Your task to perform on an android device: toggle show notifications on the lock screen Image 0: 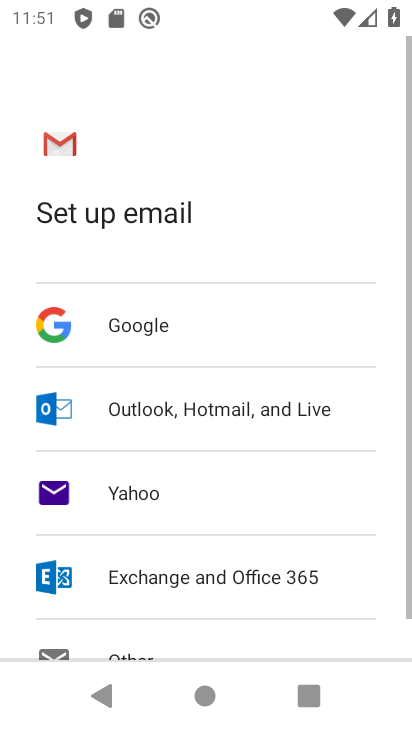
Step 0: press home button
Your task to perform on an android device: toggle show notifications on the lock screen Image 1: 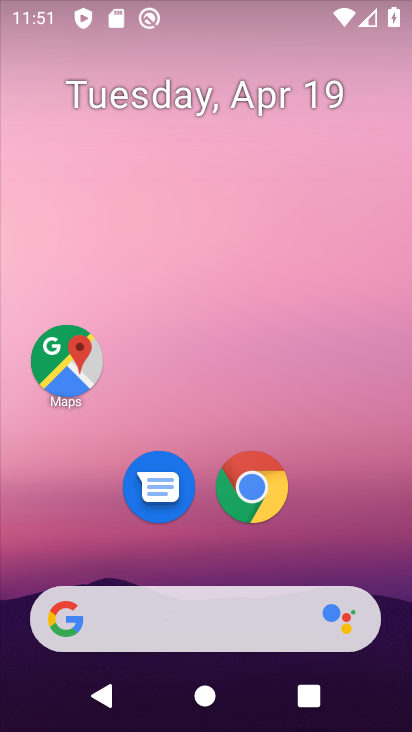
Step 1: drag from (357, 546) to (289, 92)
Your task to perform on an android device: toggle show notifications on the lock screen Image 2: 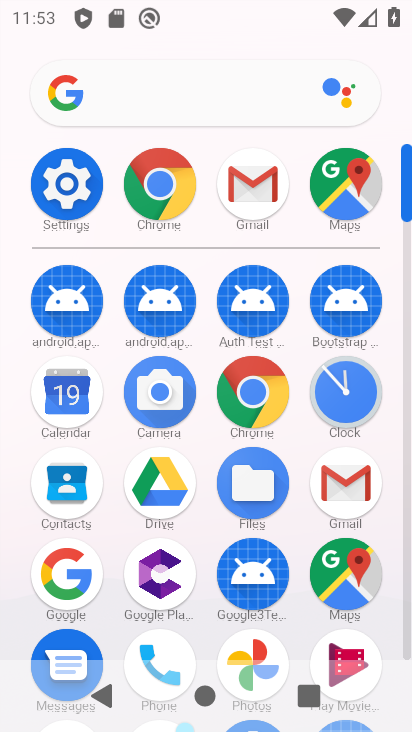
Step 2: click (83, 196)
Your task to perform on an android device: toggle show notifications on the lock screen Image 3: 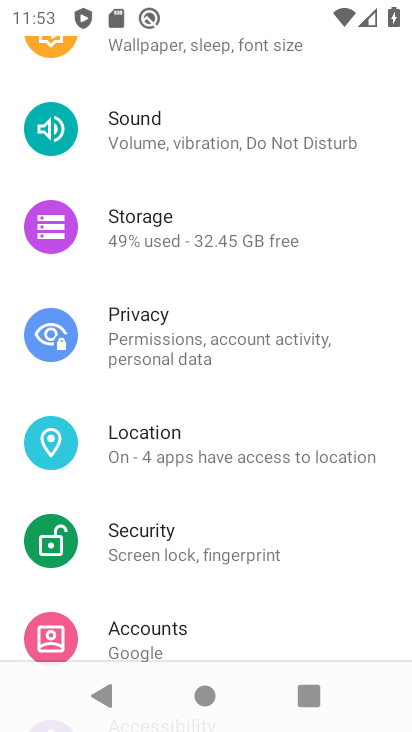
Step 3: drag from (217, 181) to (262, 564)
Your task to perform on an android device: toggle show notifications on the lock screen Image 4: 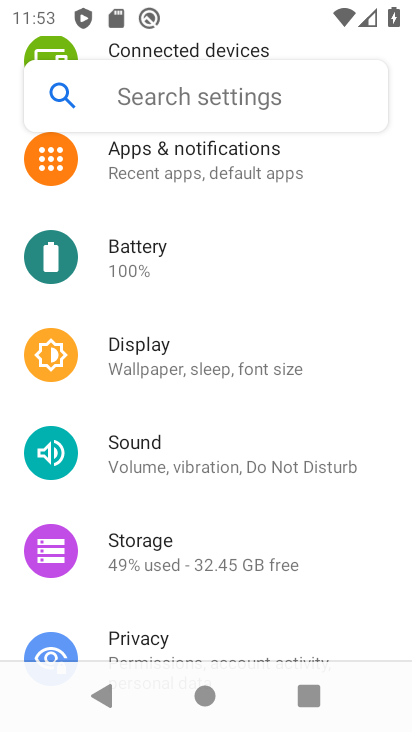
Step 4: click (191, 168)
Your task to perform on an android device: toggle show notifications on the lock screen Image 5: 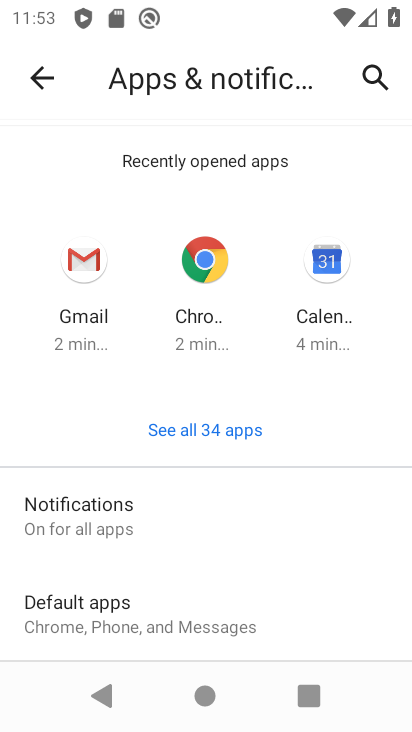
Step 5: click (168, 532)
Your task to perform on an android device: toggle show notifications on the lock screen Image 6: 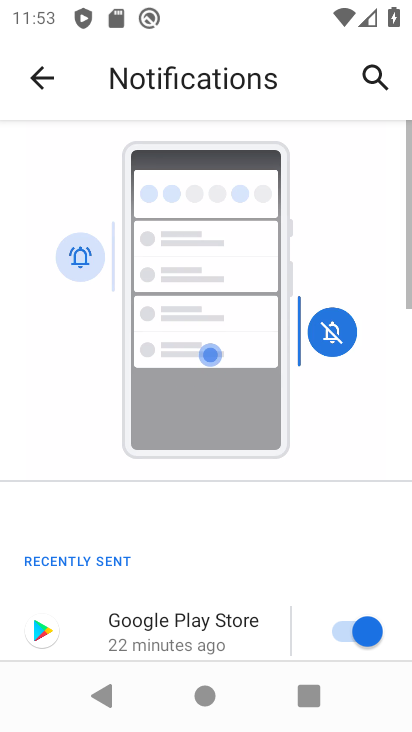
Step 6: drag from (155, 593) to (259, 61)
Your task to perform on an android device: toggle show notifications on the lock screen Image 7: 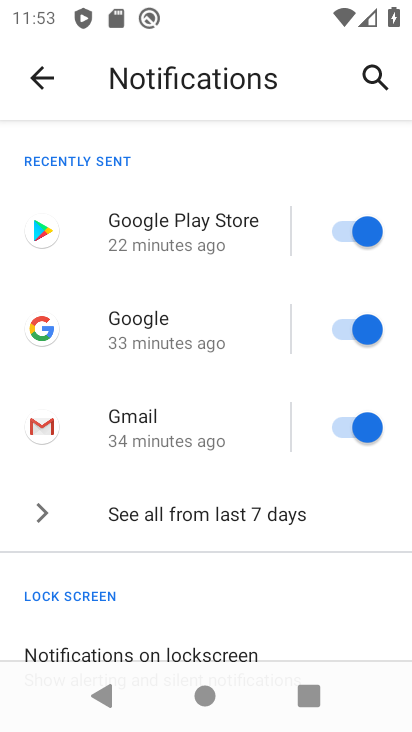
Step 7: drag from (228, 566) to (263, 135)
Your task to perform on an android device: toggle show notifications on the lock screen Image 8: 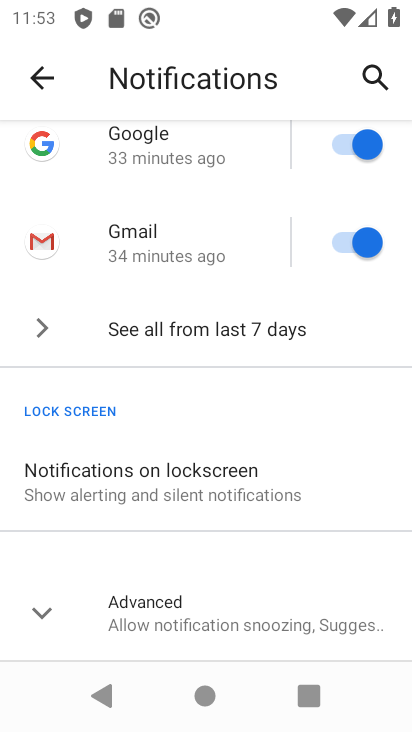
Step 8: click (135, 478)
Your task to perform on an android device: toggle show notifications on the lock screen Image 9: 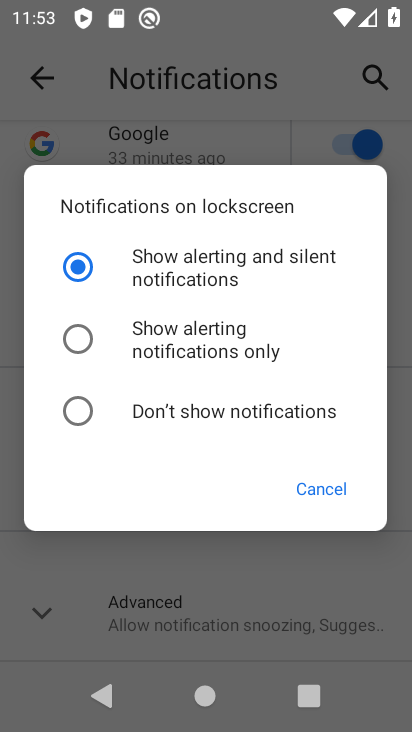
Step 9: click (163, 406)
Your task to perform on an android device: toggle show notifications on the lock screen Image 10: 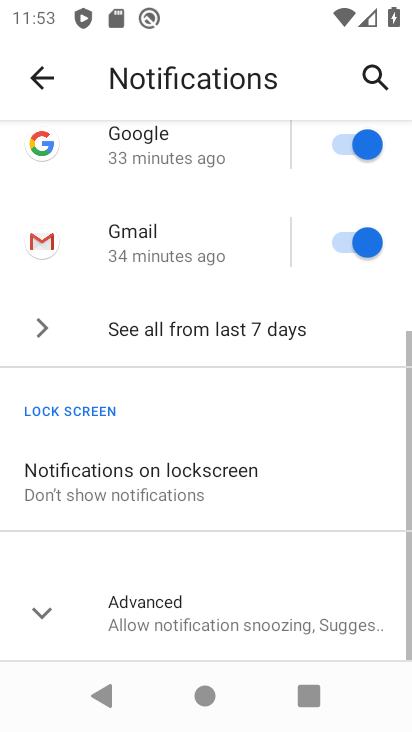
Step 10: task complete